Your task to perform on an android device: change alarm snooze length Image 0: 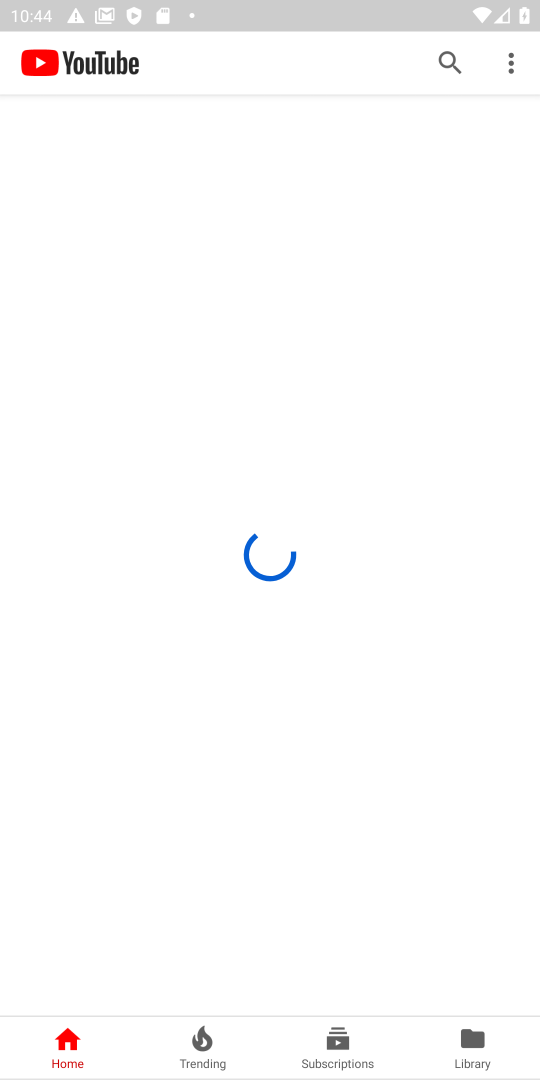
Step 0: press home button
Your task to perform on an android device: change alarm snooze length Image 1: 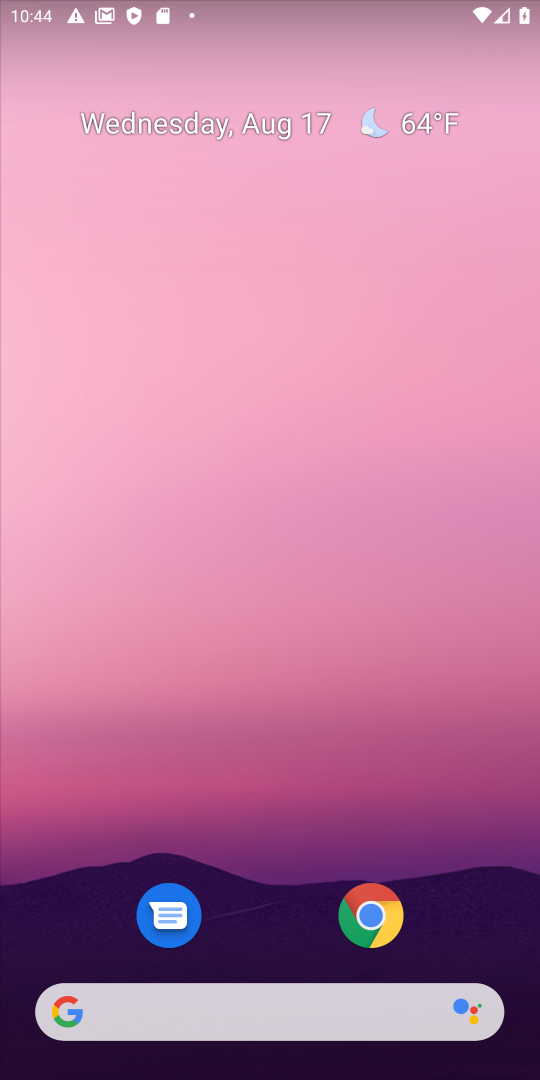
Step 1: drag from (246, 894) to (194, 152)
Your task to perform on an android device: change alarm snooze length Image 2: 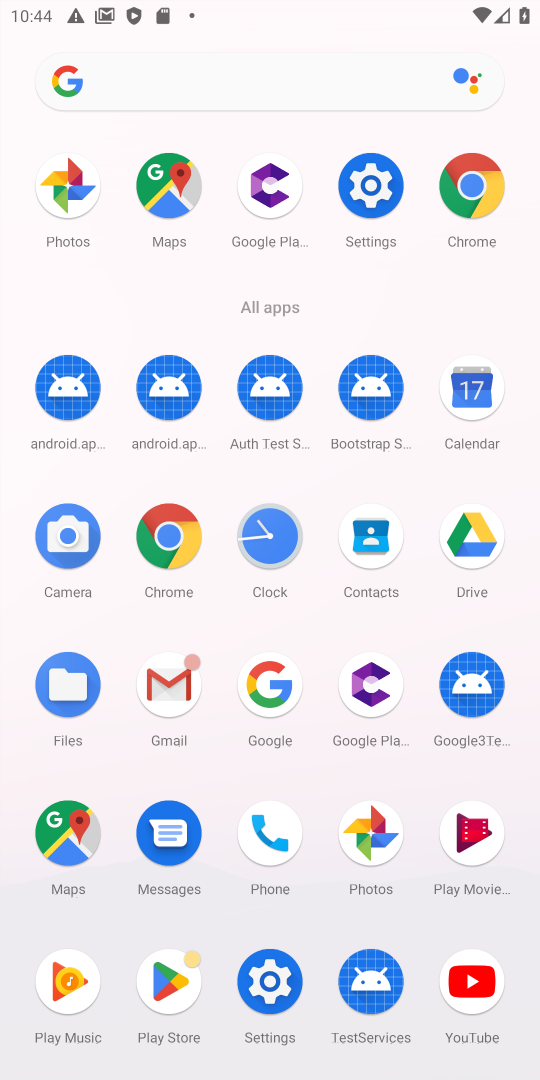
Step 2: click (262, 543)
Your task to perform on an android device: change alarm snooze length Image 3: 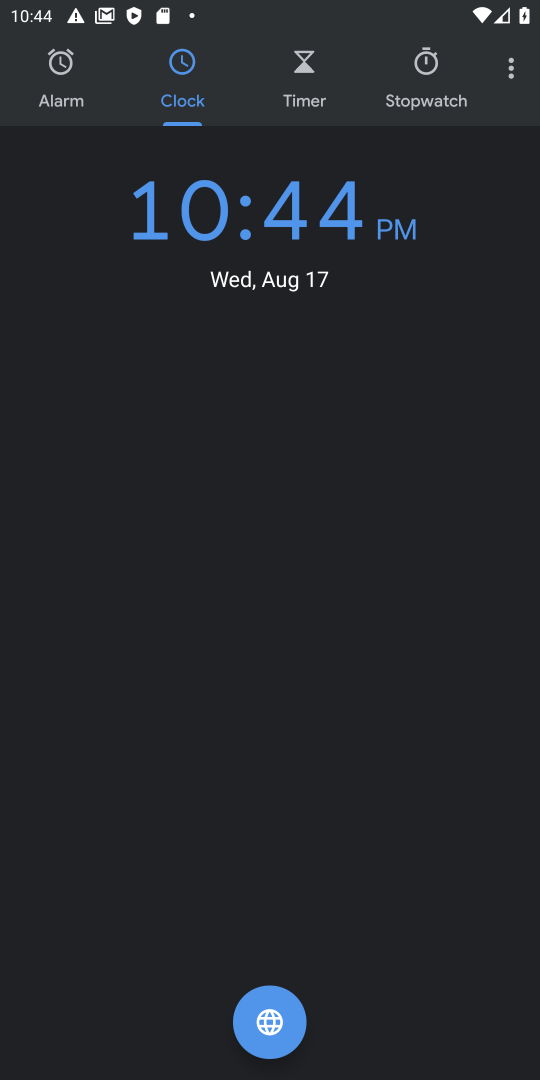
Step 3: click (498, 79)
Your task to perform on an android device: change alarm snooze length Image 4: 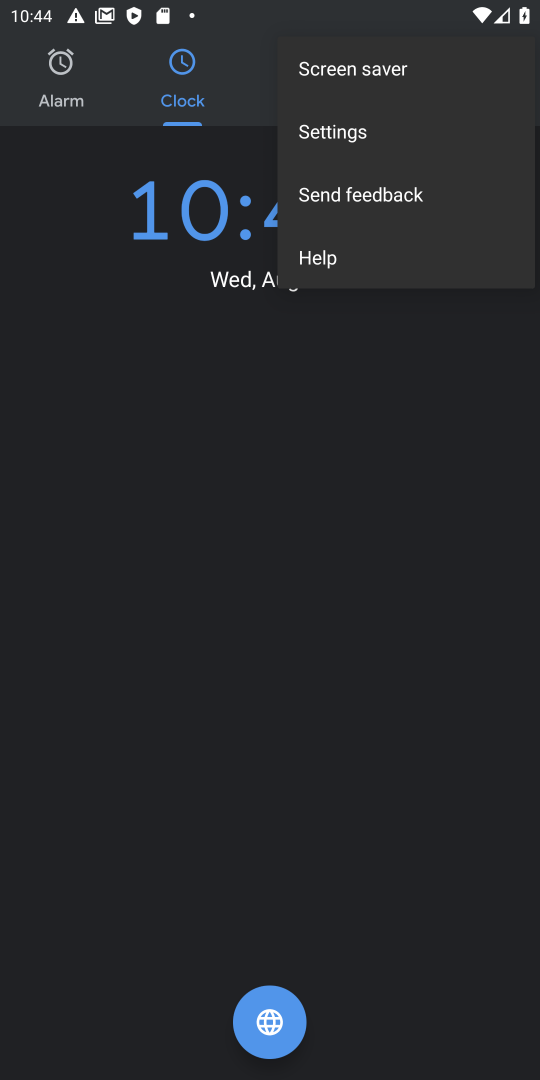
Step 4: click (327, 126)
Your task to perform on an android device: change alarm snooze length Image 5: 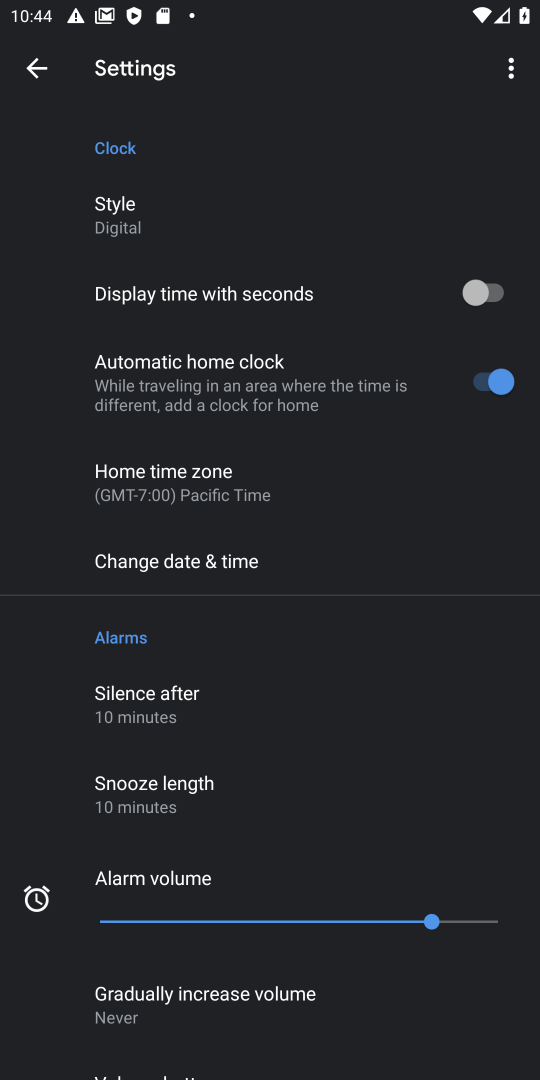
Step 5: click (169, 791)
Your task to perform on an android device: change alarm snooze length Image 6: 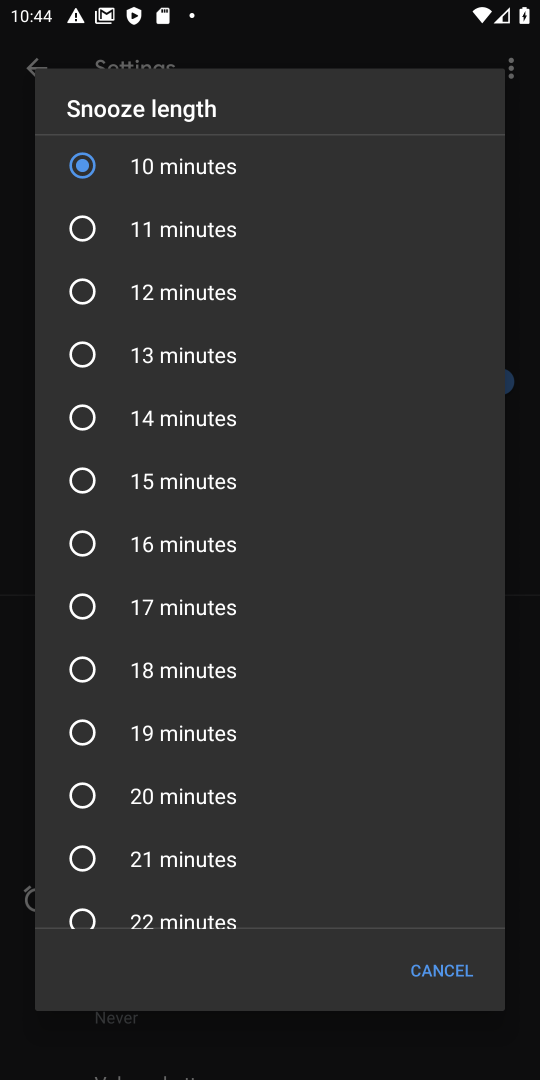
Step 6: click (85, 478)
Your task to perform on an android device: change alarm snooze length Image 7: 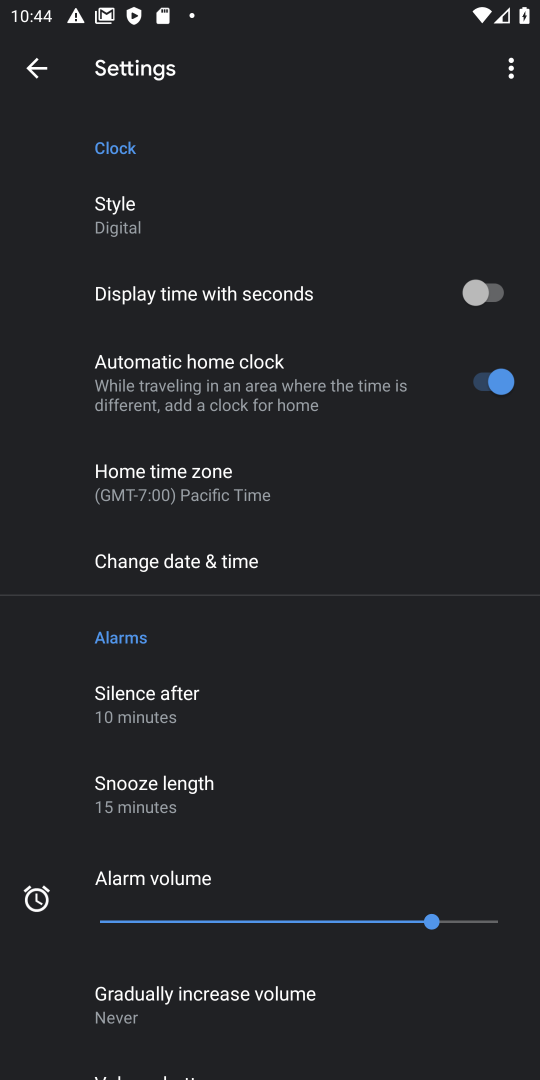
Step 7: task complete